Your task to perform on an android device: turn off smart reply in the gmail app Image 0: 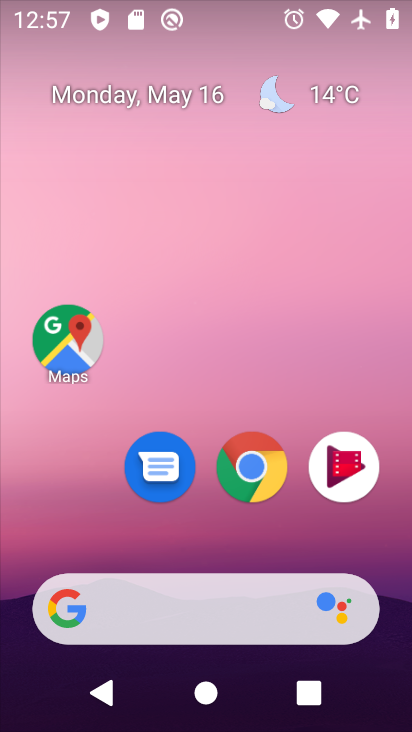
Step 0: drag from (216, 509) to (234, 246)
Your task to perform on an android device: turn off smart reply in the gmail app Image 1: 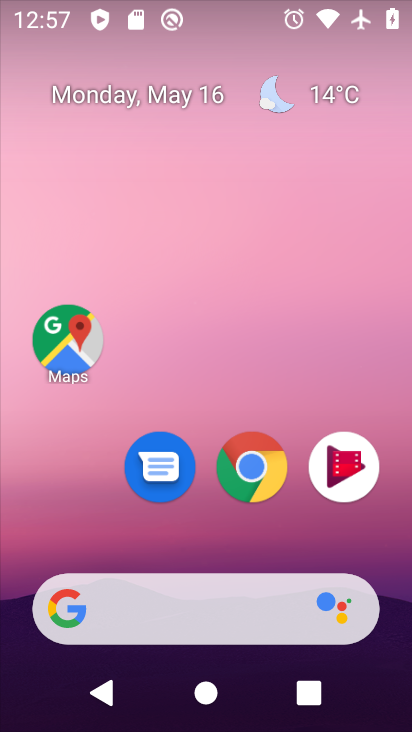
Step 1: drag from (192, 431) to (216, 221)
Your task to perform on an android device: turn off smart reply in the gmail app Image 2: 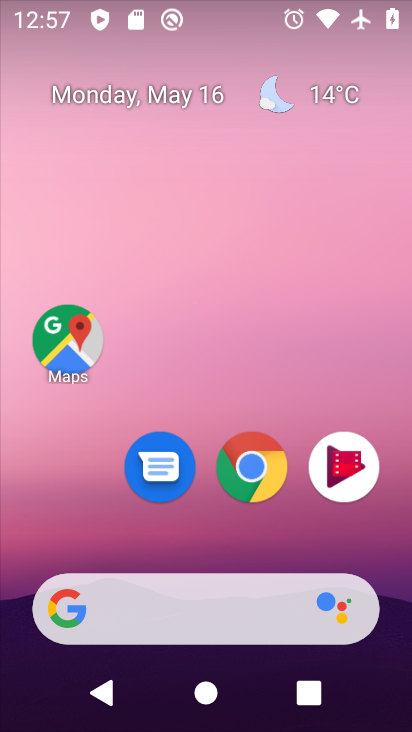
Step 2: drag from (230, 566) to (212, 242)
Your task to perform on an android device: turn off smart reply in the gmail app Image 3: 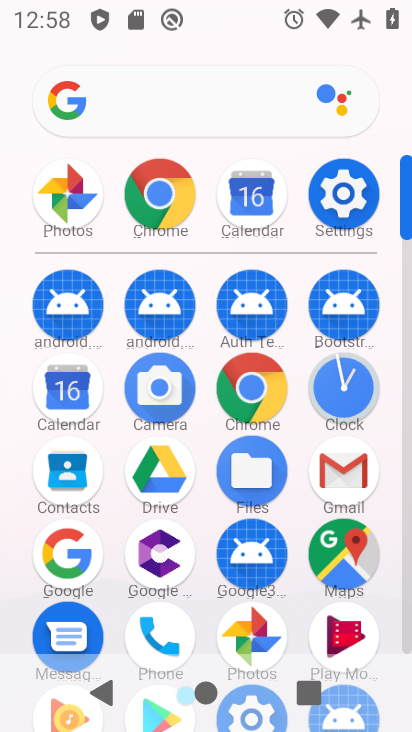
Step 3: click (346, 470)
Your task to perform on an android device: turn off smart reply in the gmail app Image 4: 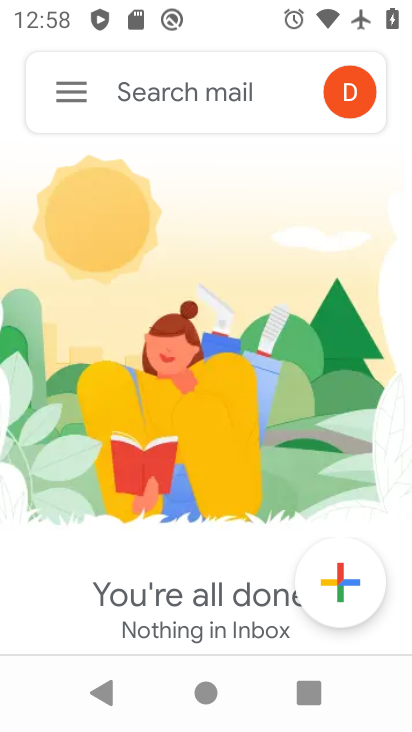
Step 4: click (59, 82)
Your task to perform on an android device: turn off smart reply in the gmail app Image 5: 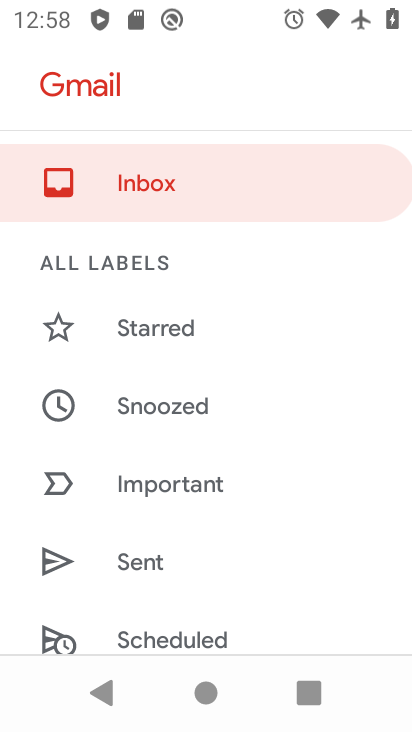
Step 5: drag from (203, 608) to (255, 198)
Your task to perform on an android device: turn off smart reply in the gmail app Image 6: 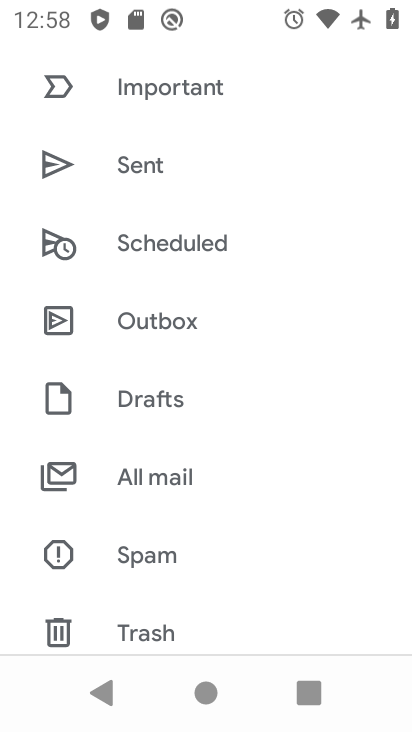
Step 6: drag from (184, 554) to (273, 118)
Your task to perform on an android device: turn off smart reply in the gmail app Image 7: 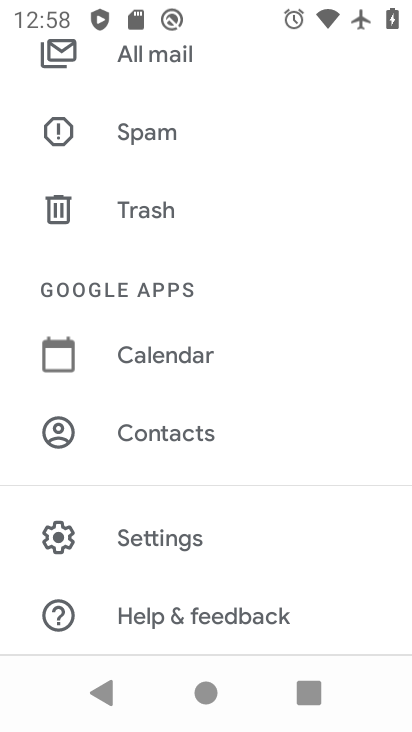
Step 7: click (167, 534)
Your task to perform on an android device: turn off smart reply in the gmail app Image 8: 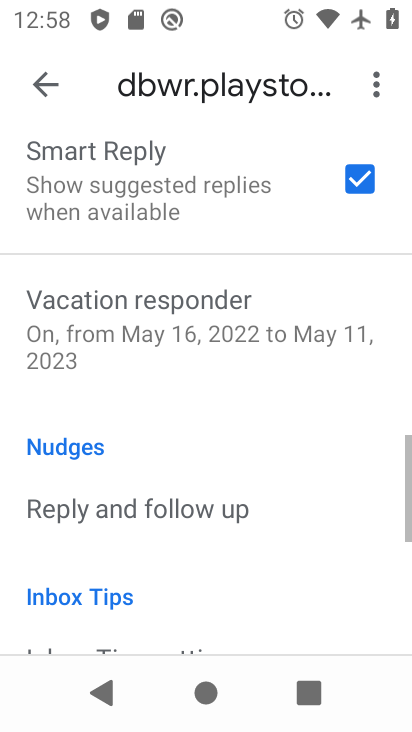
Step 8: drag from (125, 556) to (251, 92)
Your task to perform on an android device: turn off smart reply in the gmail app Image 9: 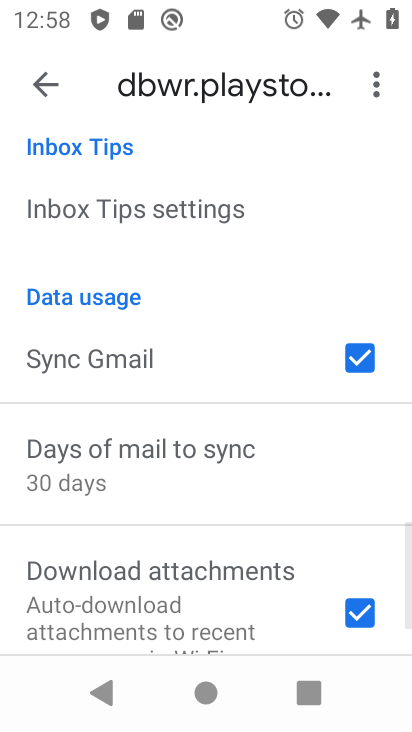
Step 9: drag from (177, 565) to (252, 116)
Your task to perform on an android device: turn off smart reply in the gmail app Image 10: 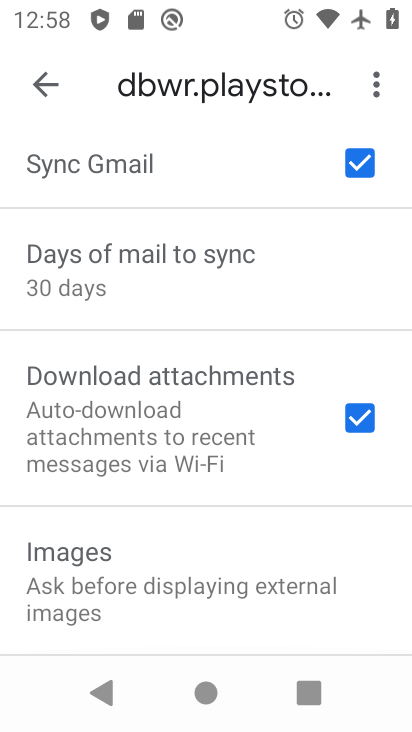
Step 10: drag from (134, 575) to (267, 135)
Your task to perform on an android device: turn off smart reply in the gmail app Image 11: 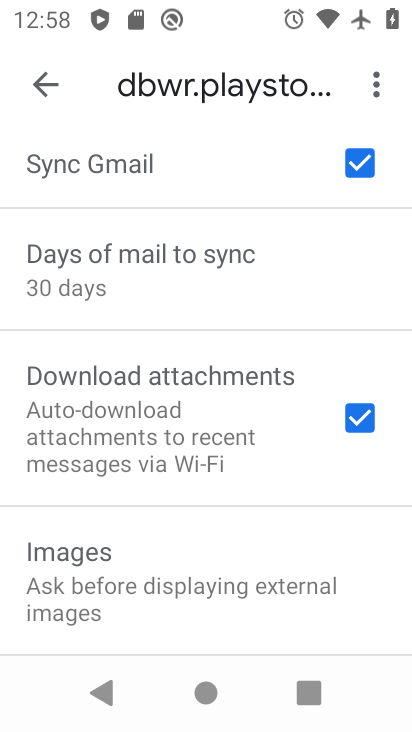
Step 11: click (29, 81)
Your task to perform on an android device: turn off smart reply in the gmail app Image 12: 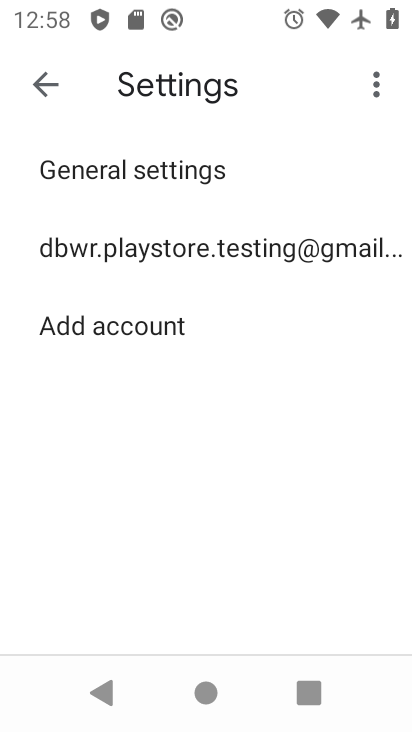
Step 12: click (48, 57)
Your task to perform on an android device: turn off smart reply in the gmail app Image 13: 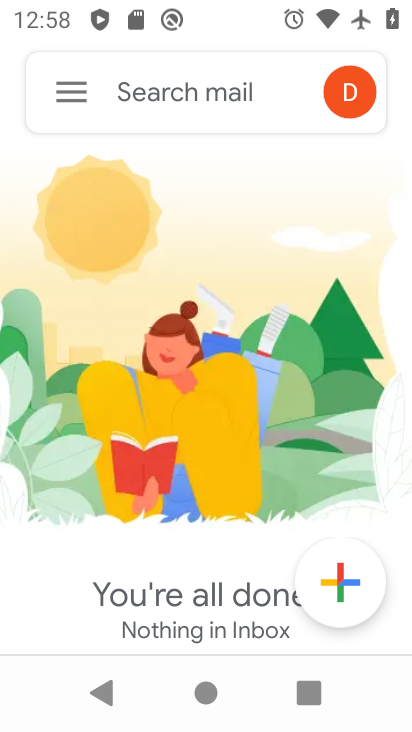
Step 13: click (58, 74)
Your task to perform on an android device: turn off smart reply in the gmail app Image 14: 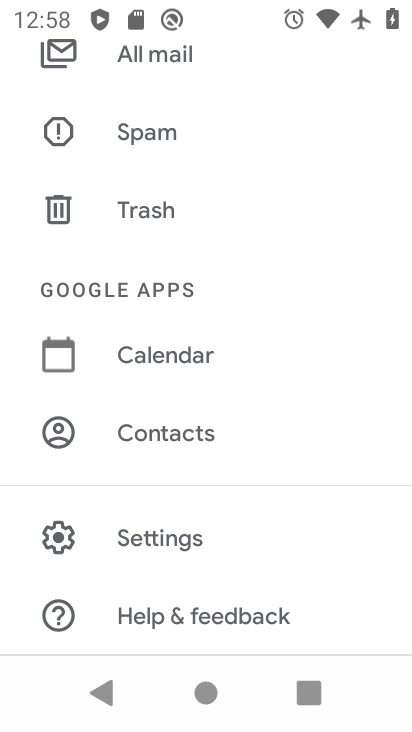
Step 14: click (108, 523)
Your task to perform on an android device: turn off smart reply in the gmail app Image 15: 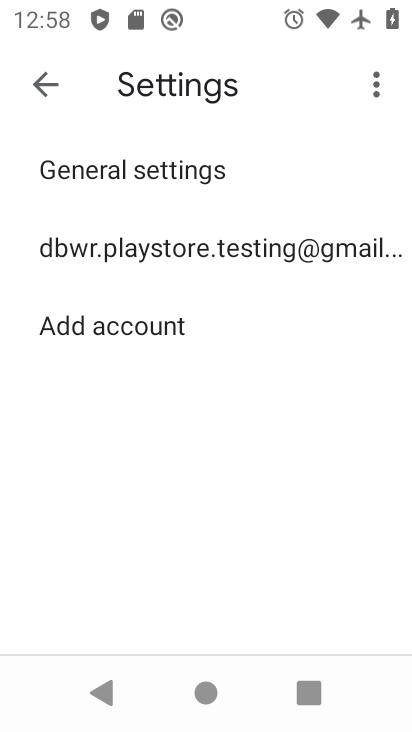
Step 15: click (243, 236)
Your task to perform on an android device: turn off smart reply in the gmail app Image 16: 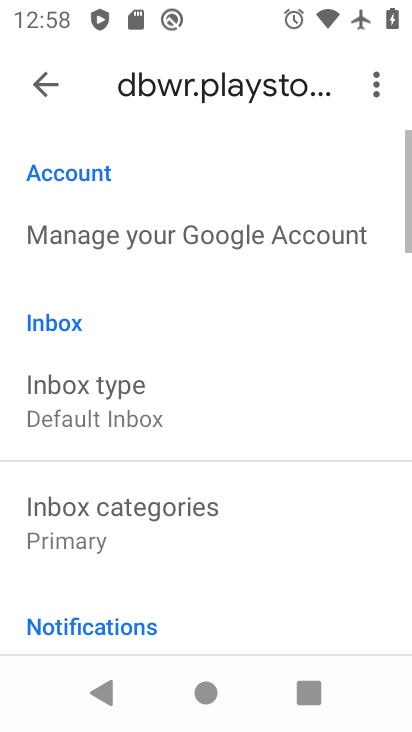
Step 16: drag from (180, 553) to (250, 104)
Your task to perform on an android device: turn off smart reply in the gmail app Image 17: 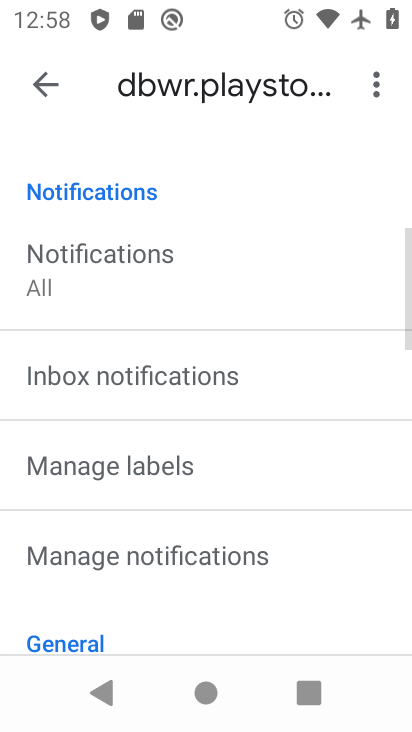
Step 17: drag from (226, 470) to (279, 142)
Your task to perform on an android device: turn off smart reply in the gmail app Image 18: 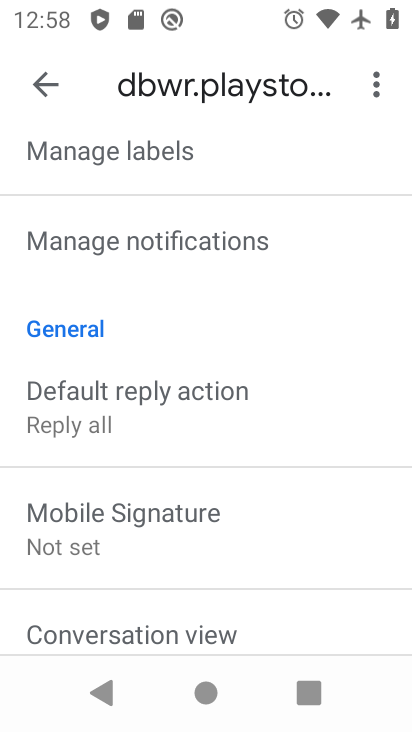
Step 18: drag from (173, 498) to (261, 105)
Your task to perform on an android device: turn off smart reply in the gmail app Image 19: 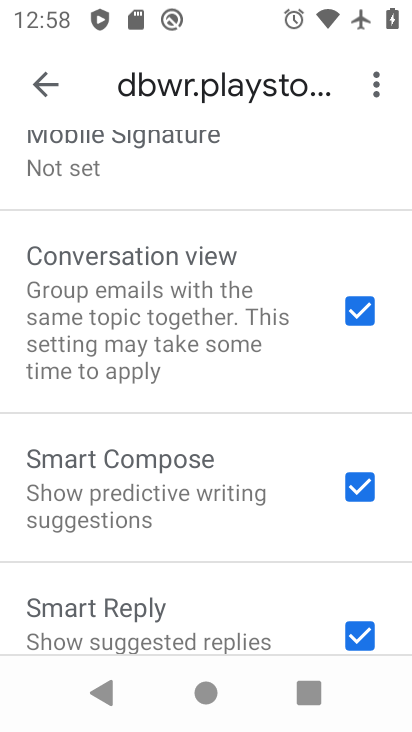
Step 19: drag from (82, 537) to (152, 256)
Your task to perform on an android device: turn off smart reply in the gmail app Image 20: 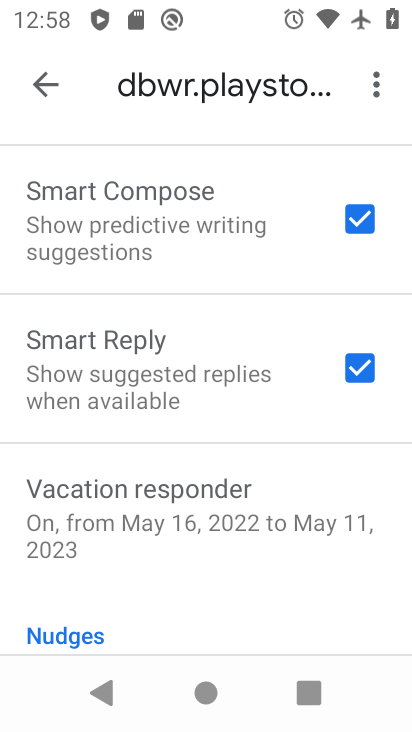
Step 20: click (359, 351)
Your task to perform on an android device: turn off smart reply in the gmail app Image 21: 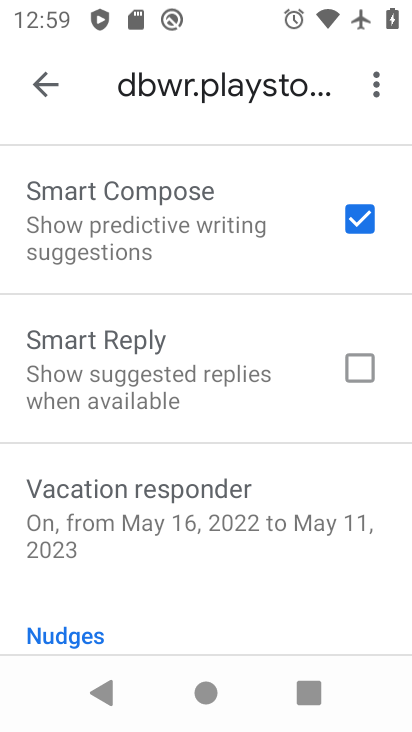
Step 21: task complete